Your task to perform on an android device: Empty the shopping cart on bestbuy.com. Search for bose soundsport free on bestbuy.com, select the first entry, add it to the cart, then select checkout. Image 0: 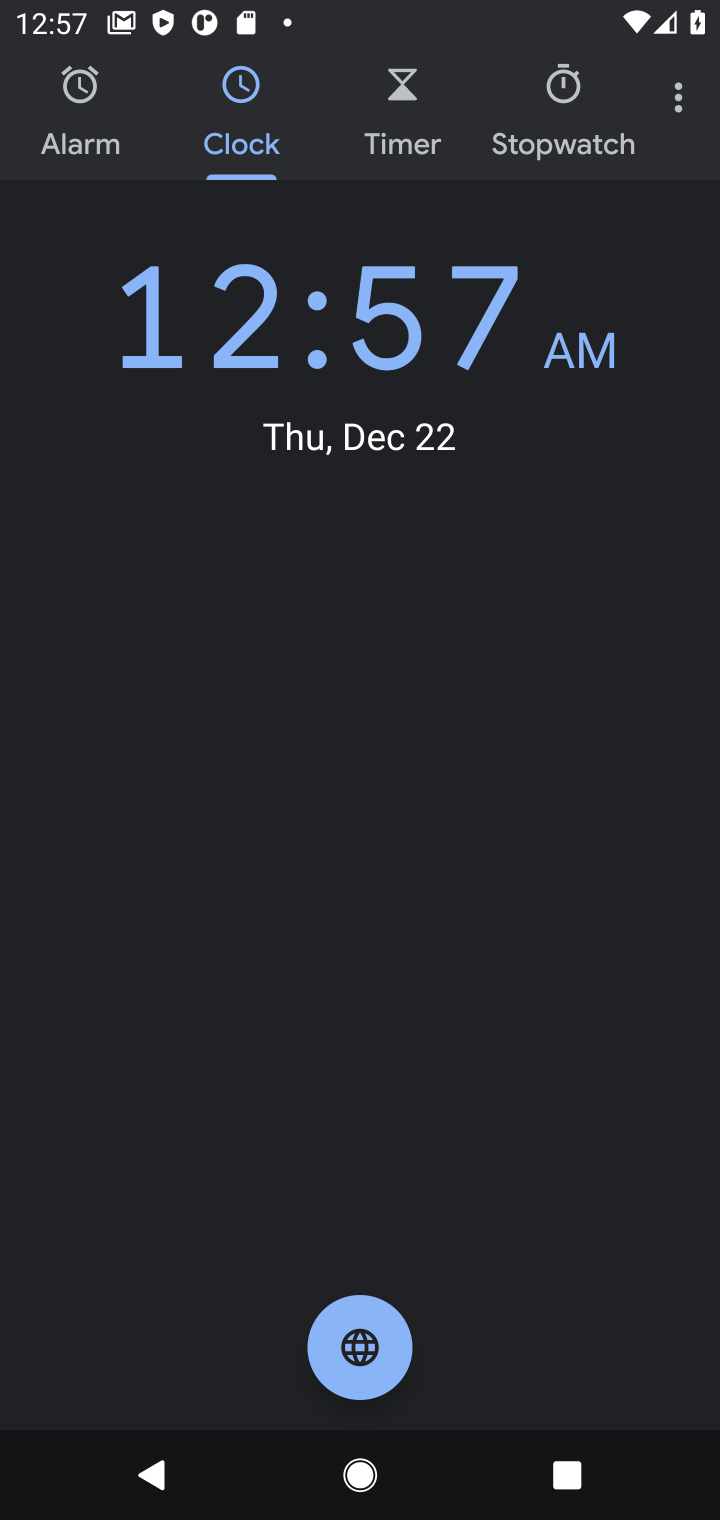
Step 0: press home button
Your task to perform on an android device: Empty the shopping cart on bestbuy.com. Search for bose soundsport free on bestbuy.com, select the first entry, add it to the cart, then select checkout. Image 1: 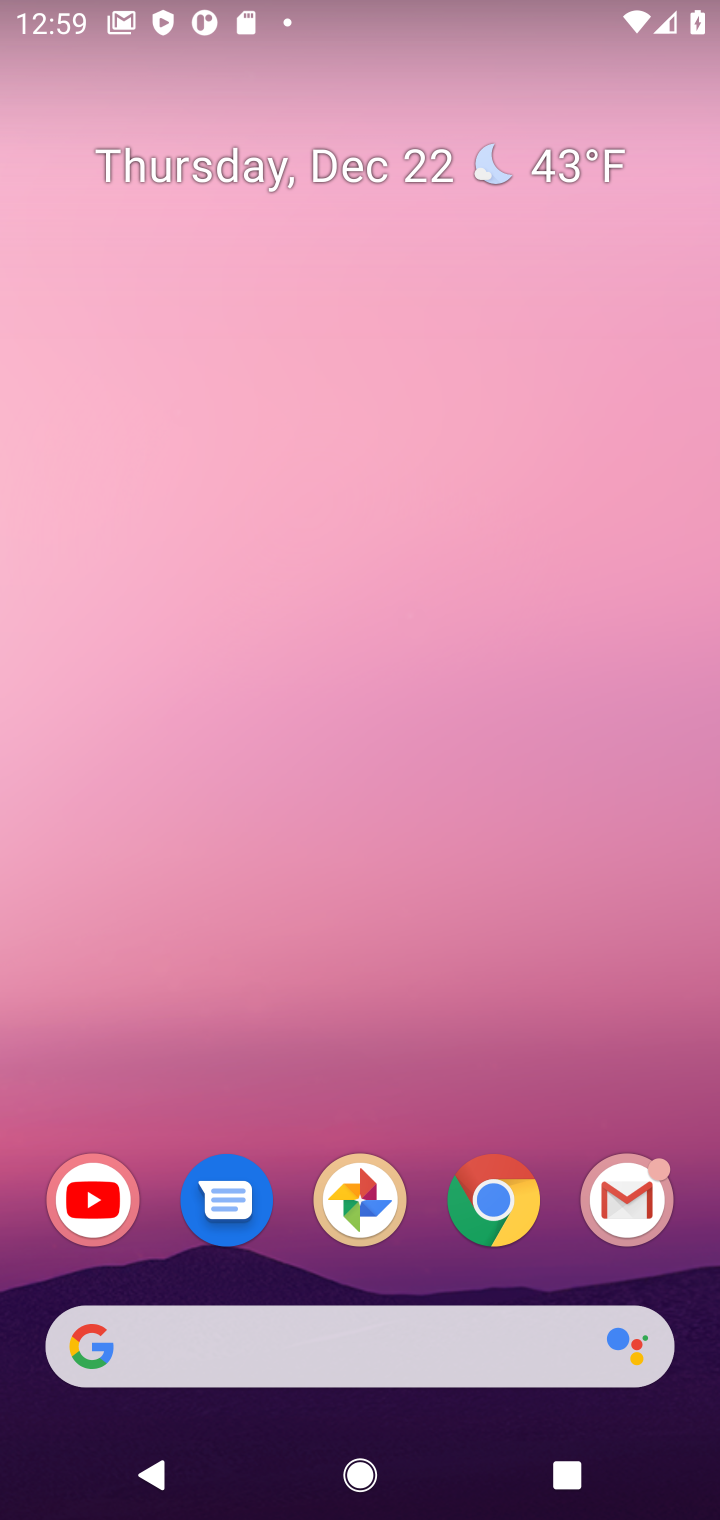
Step 1: click (488, 1215)
Your task to perform on an android device: Empty the shopping cart on bestbuy.com. Search for bose soundsport free on bestbuy.com, select the first entry, add it to the cart, then select checkout. Image 2: 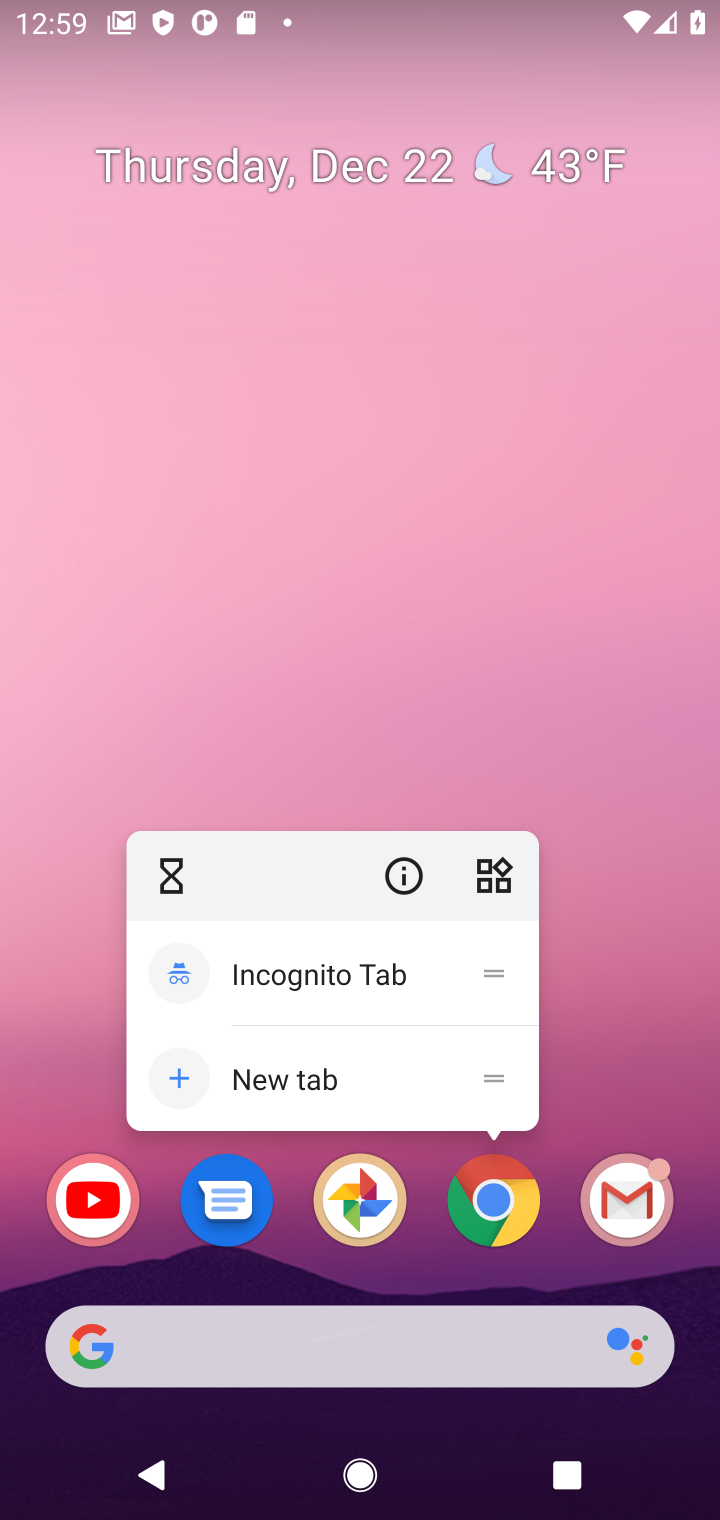
Step 2: click (488, 1215)
Your task to perform on an android device: Empty the shopping cart on bestbuy.com. Search for bose soundsport free on bestbuy.com, select the first entry, add it to the cart, then select checkout. Image 3: 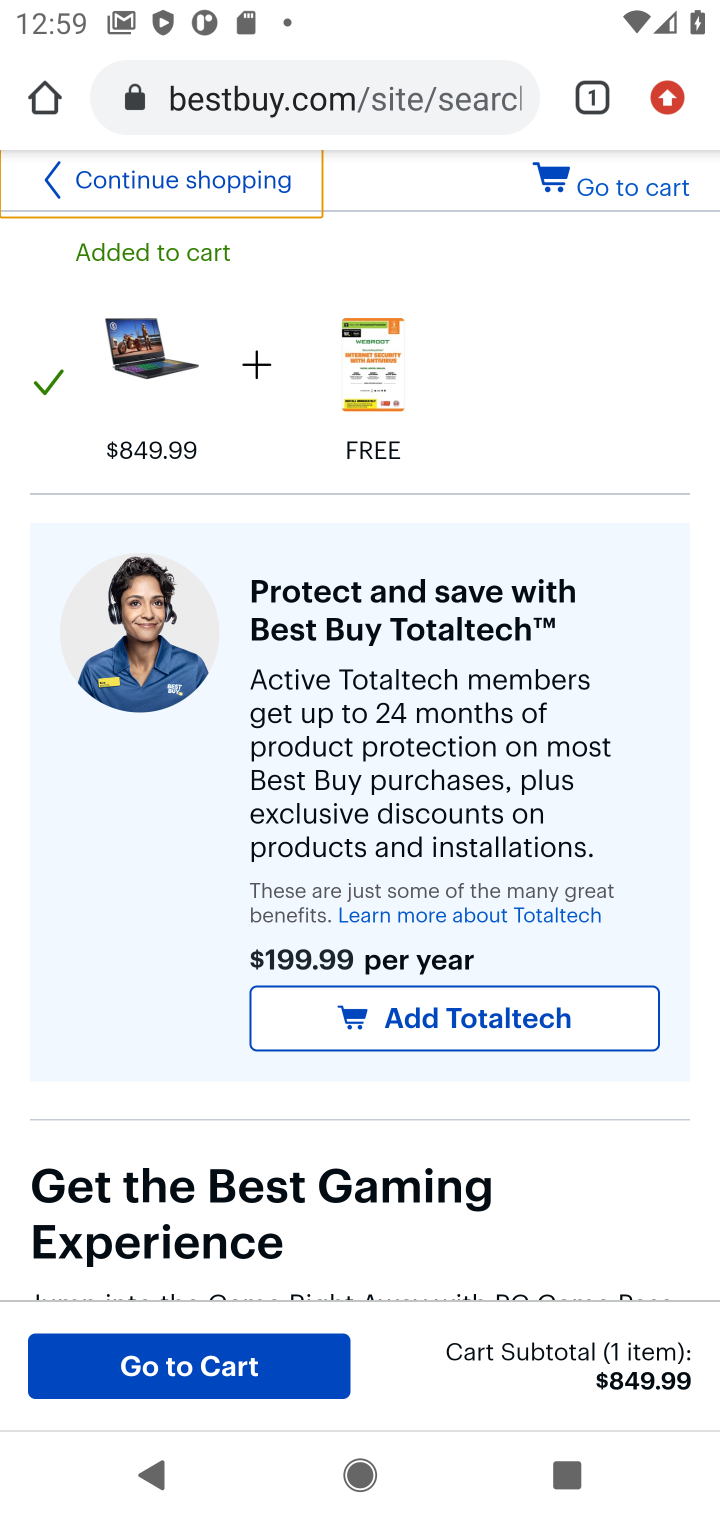
Step 3: press back button
Your task to perform on an android device: Empty the shopping cart on bestbuy.com. Search for bose soundsport free on bestbuy.com, select the first entry, add it to the cart, then select checkout. Image 4: 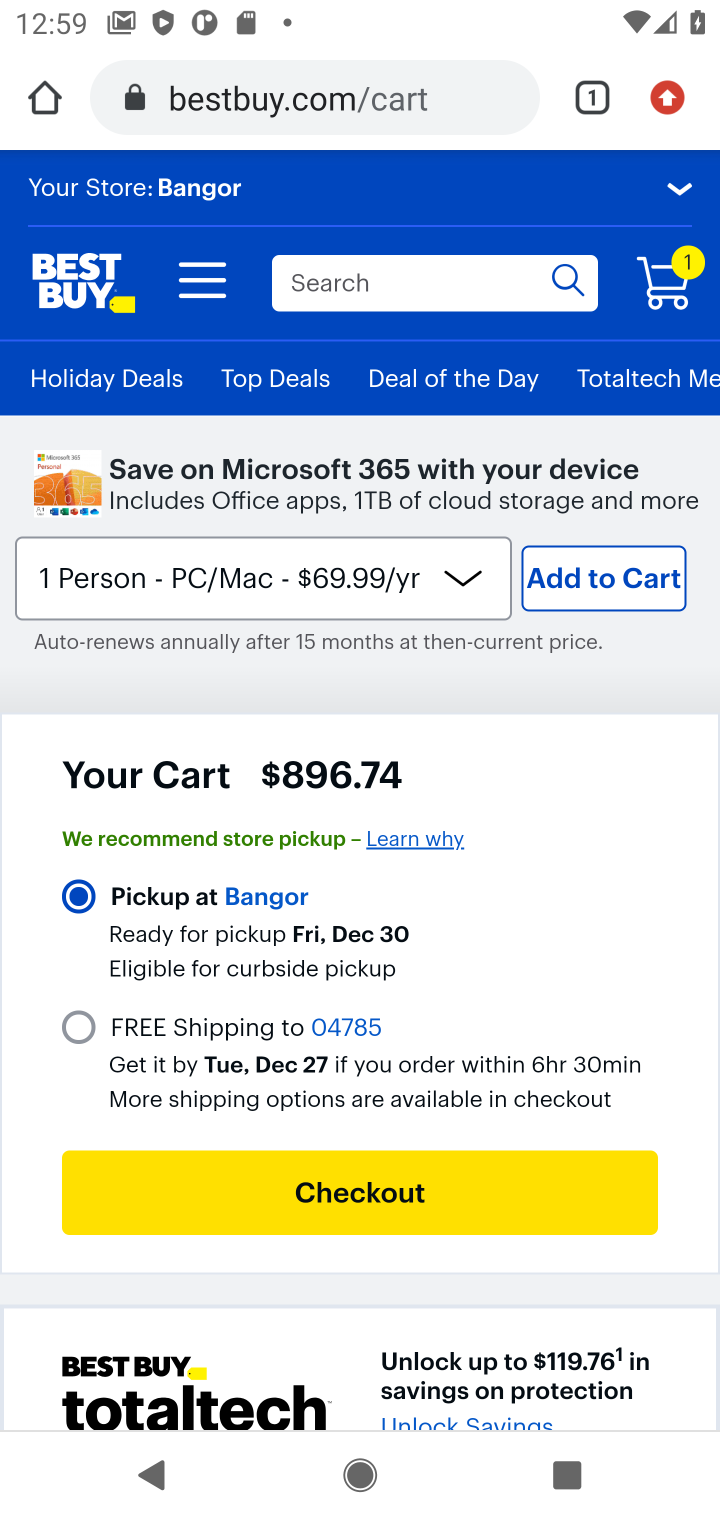
Step 4: drag from (485, 909) to (485, 339)
Your task to perform on an android device: Empty the shopping cart on bestbuy.com. Search for bose soundsport free on bestbuy.com, select the first entry, add it to the cart, then select checkout. Image 5: 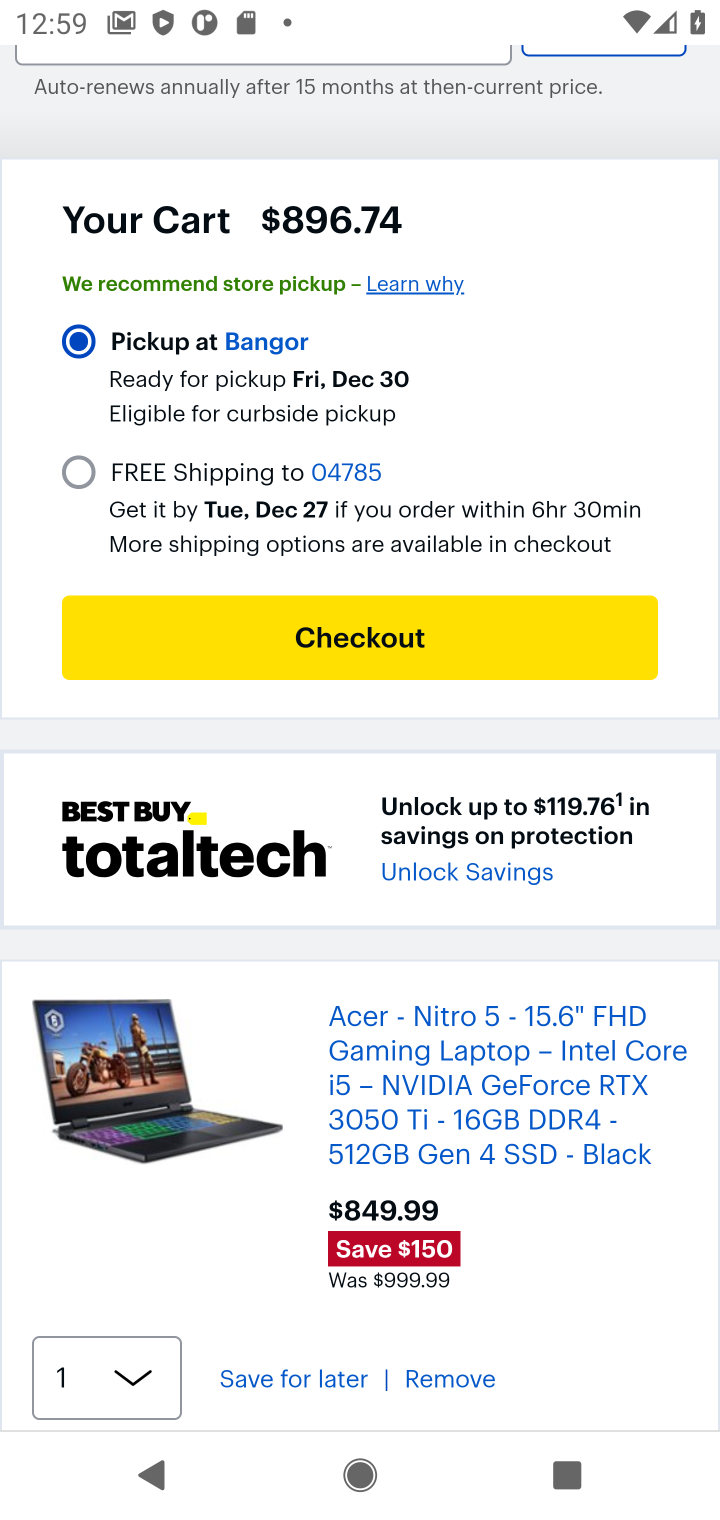
Step 5: drag from (453, 948) to (459, 540)
Your task to perform on an android device: Empty the shopping cart on bestbuy.com. Search for bose soundsport free on bestbuy.com, select the first entry, add it to the cart, then select checkout. Image 6: 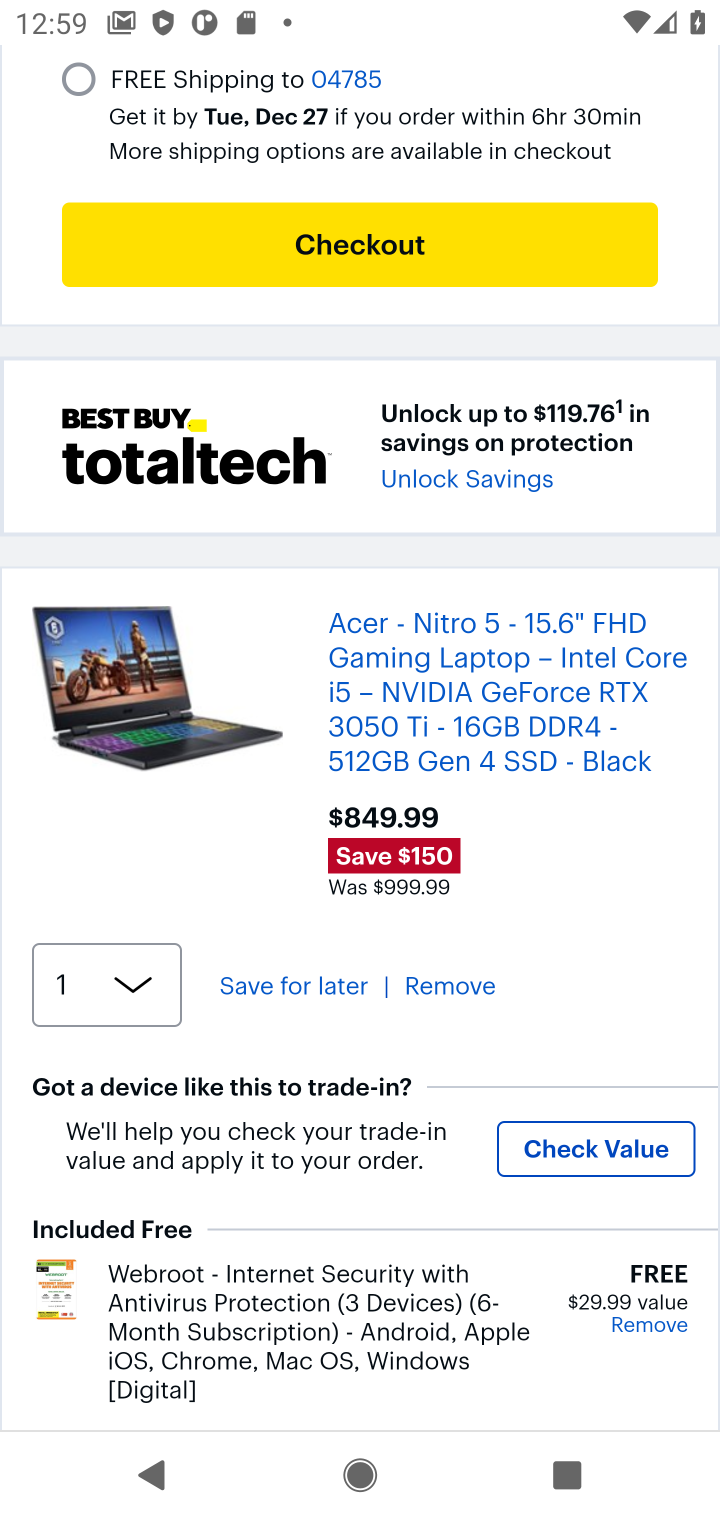
Step 6: click (449, 989)
Your task to perform on an android device: Empty the shopping cart on bestbuy.com. Search for bose soundsport free on bestbuy.com, select the first entry, add it to the cart, then select checkout. Image 7: 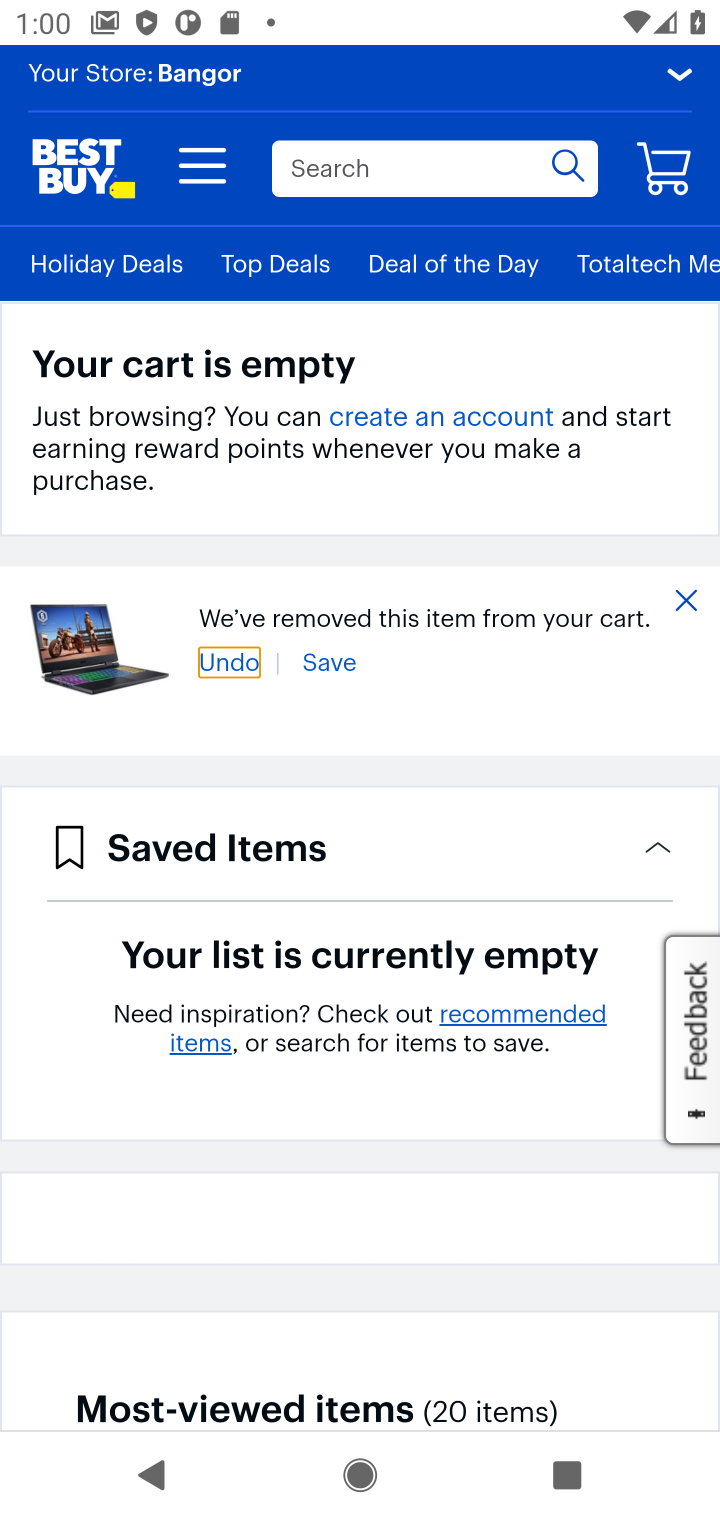
Step 7: click (315, 171)
Your task to perform on an android device: Empty the shopping cart on bestbuy.com. Search for bose soundsport free on bestbuy.com, select the first entry, add it to the cart, then select checkout. Image 8: 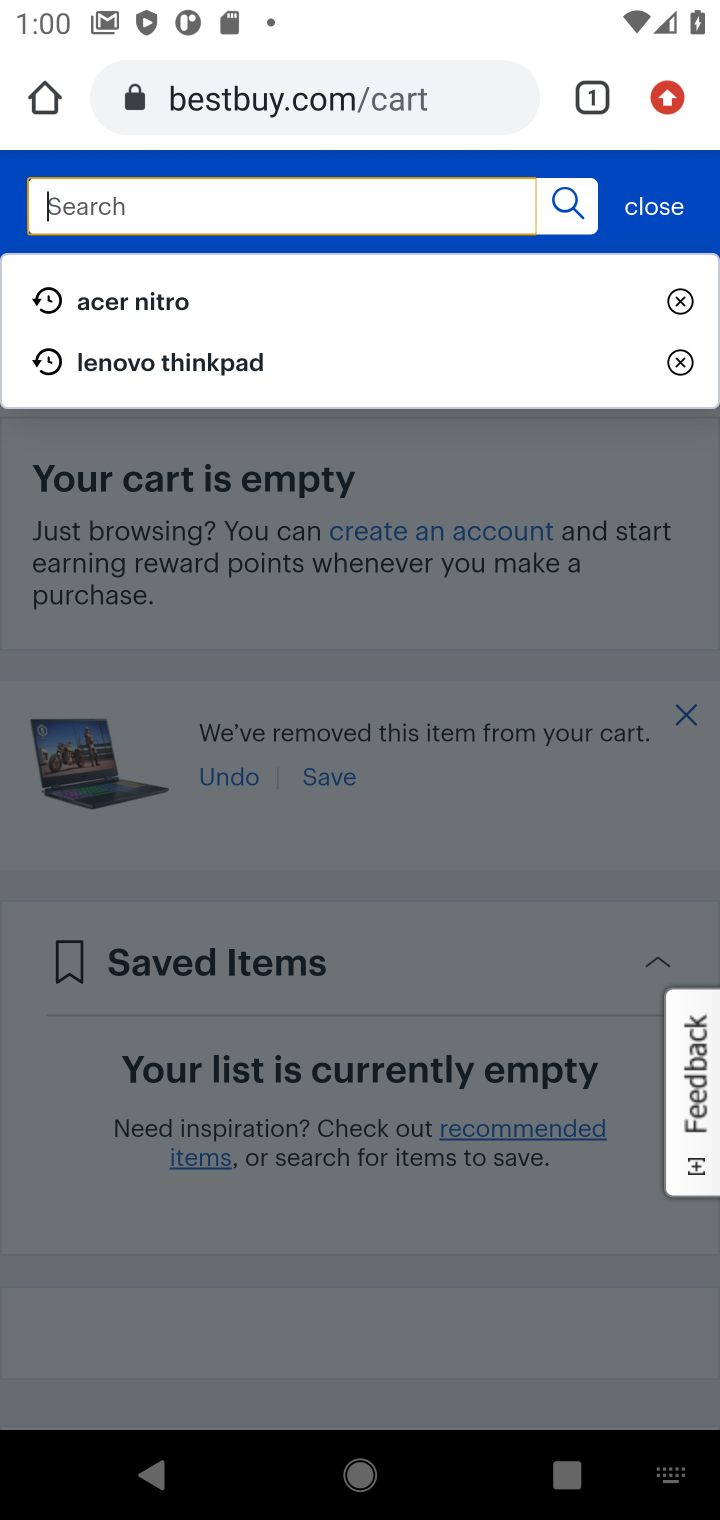
Step 8: type "bose soundsport free"
Your task to perform on an android device: Empty the shopping cart on bestbuy.com. Search for bose soundsport free on bestbuy.com, select the first entry, add it to the cart, then select checkout. Image 9: 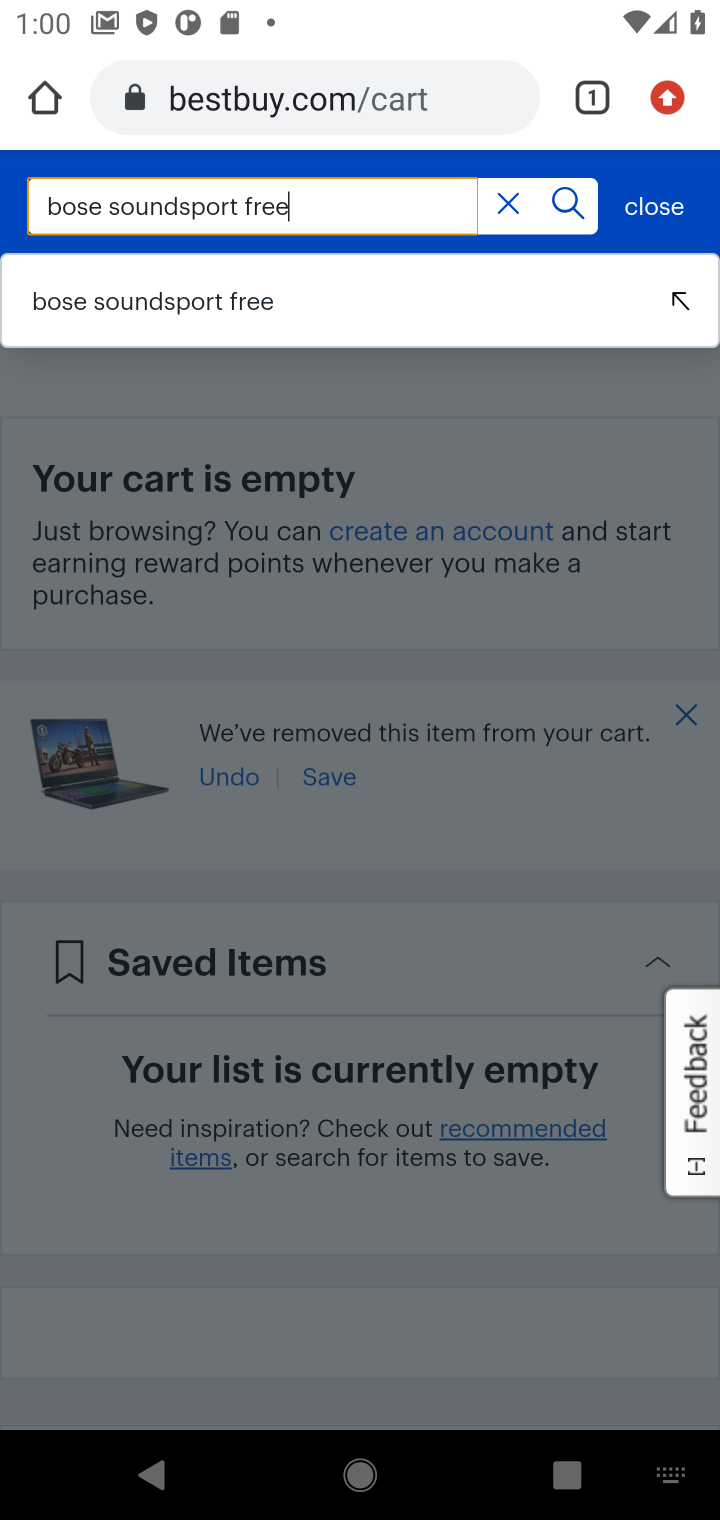
Step 9: click (175, 319)
Your task to perform on an android device: Empty the shopping cart on bestbuy.com. Search for bose soundsport free on bestbuy.com, select the first entry, add it to the cart, then select checkout. Image 10: 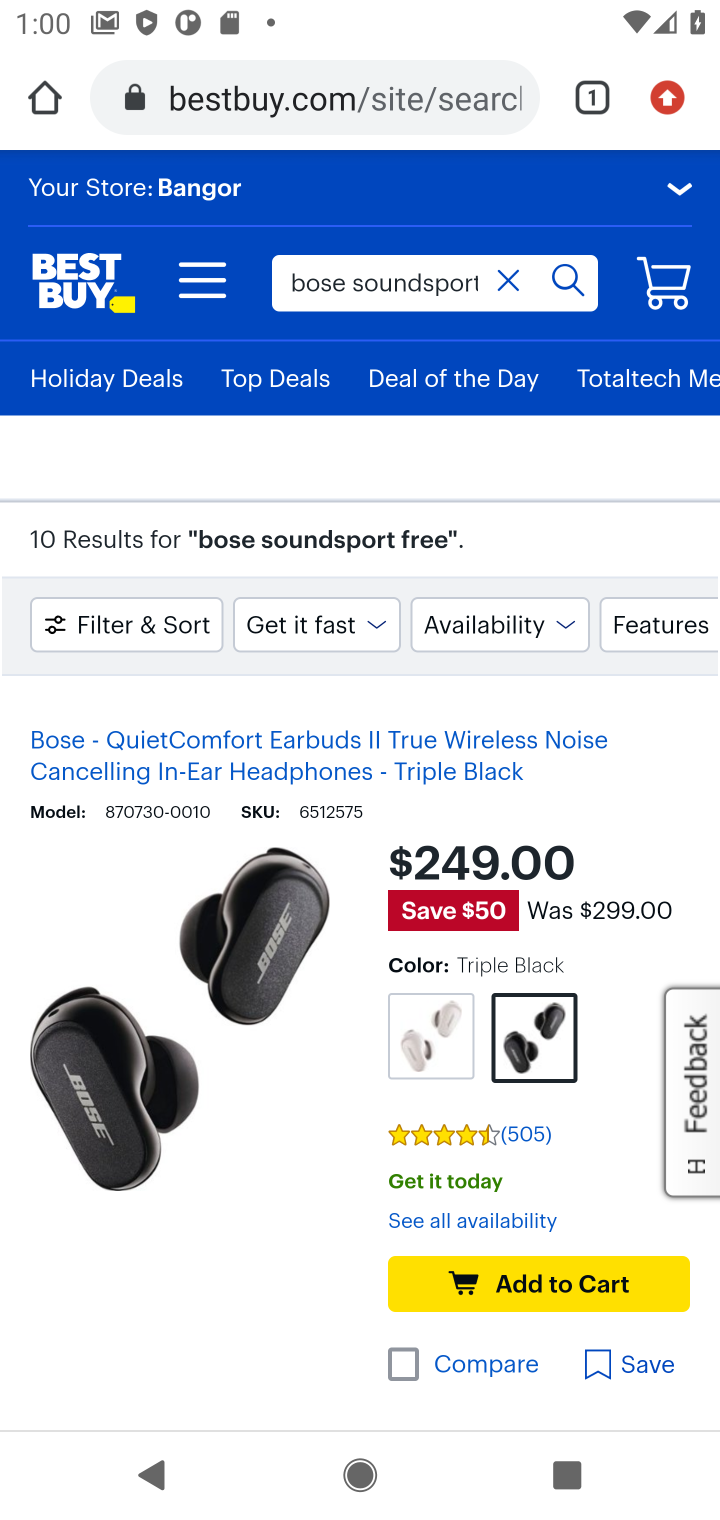
Step 10: task complete